Your task to perform on an android device: Open Reddit.com Image 0: 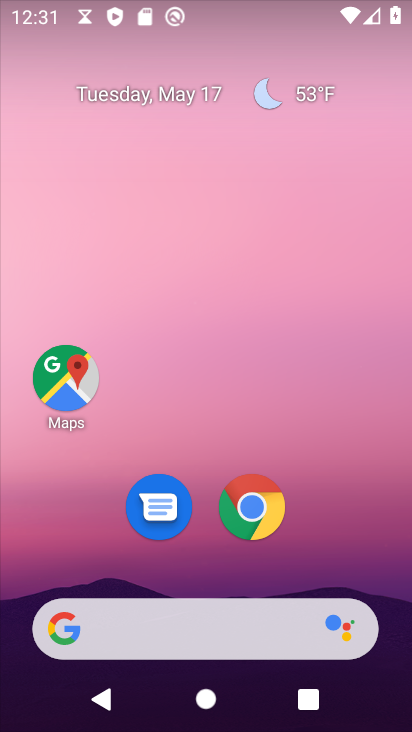
Step 0: click (243, 493)
Your task to perform on an android device: Open Reddit.com Image 1: 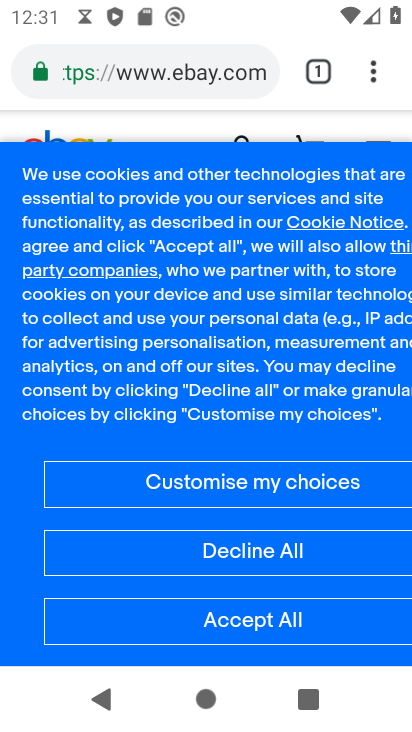
Step 1: click (235, 81)
Your task to perform on an android device: Open Reddit.com Image 2: 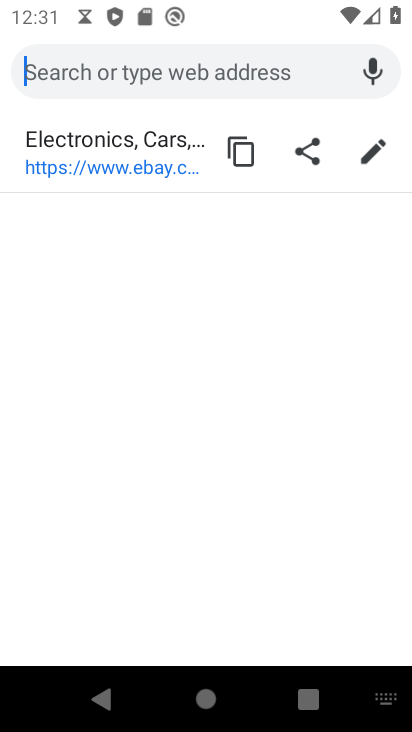
Step 2: type "Reddit.com"
Your task to perform on an android device: Open Reddit.com Image 3: 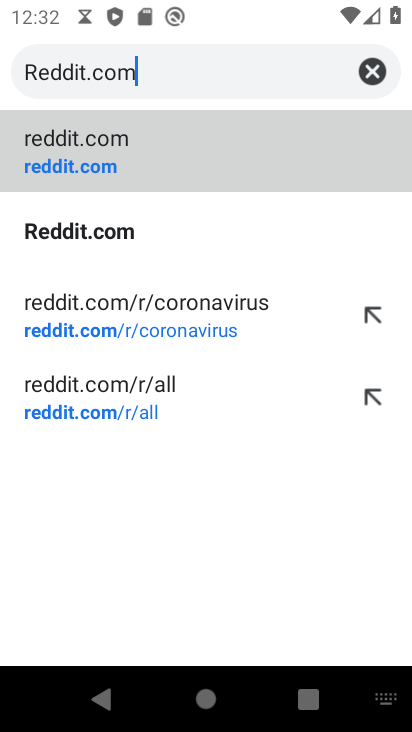
Step 3: click (57, 170)
Your task to perform on an android device: Open Reddit.com Image 4: 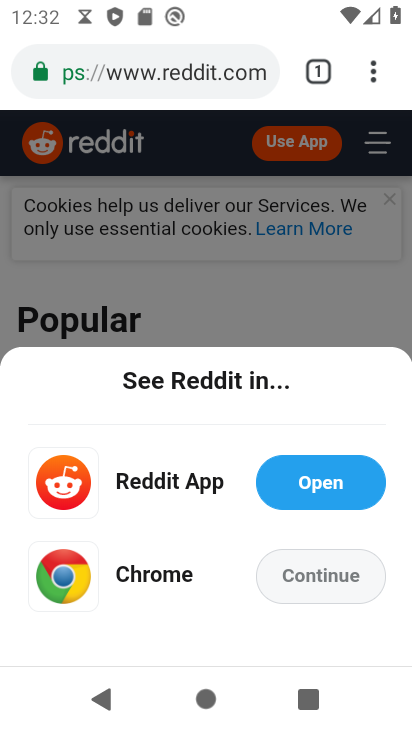
Step 4: task complete